Your task to perform on an android device: Open calendar and show me the second week of next month Image 0: 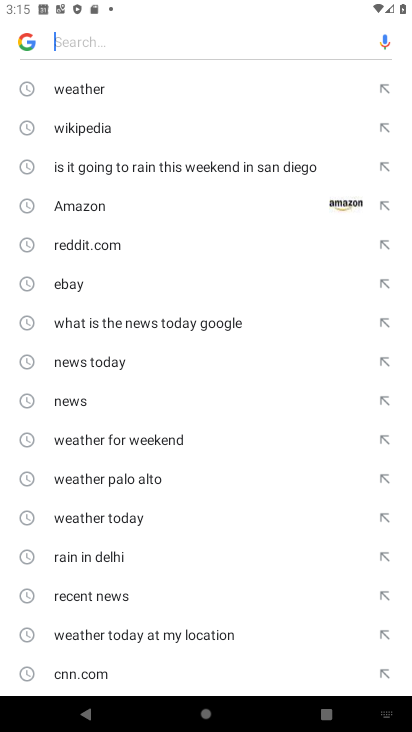
Step 0: press home button
Your task to perform on an android device: Open calendar and show me the second week of next month Image 1: 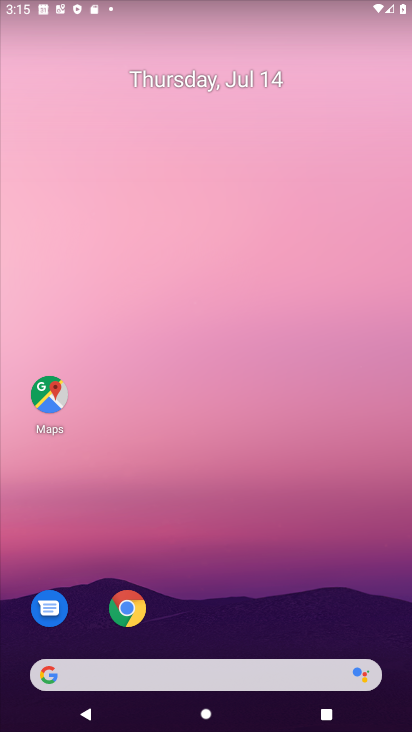
Step 1: drag from (243, 610) to (232, 52)
Your task to perform on an android device: Open calendar and show me the second week of next month Image 2: 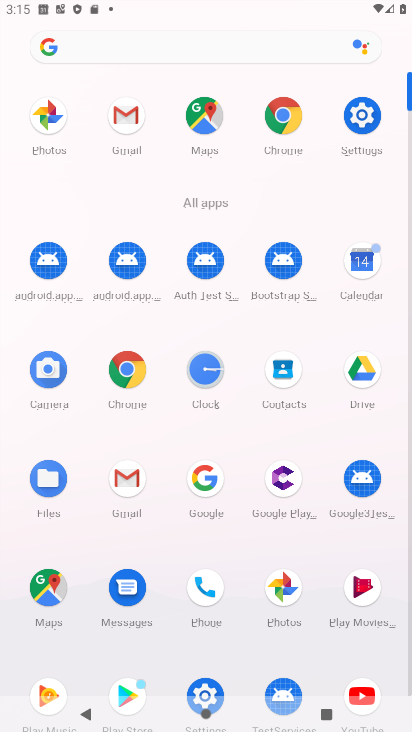
Step 2: click (358, 270)
Your task to perform on an android device: Open calendar and show me the second week of next month Image 3: 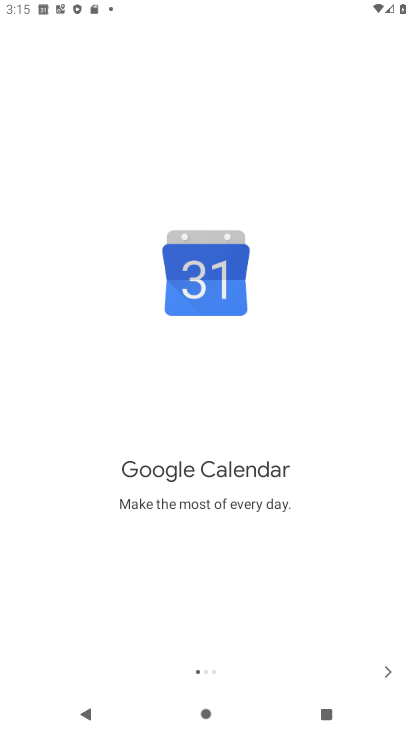
Step 3: click (388, 666)
Your task to perform on an android device: Open calendar and show me the second week of next month Image 4: 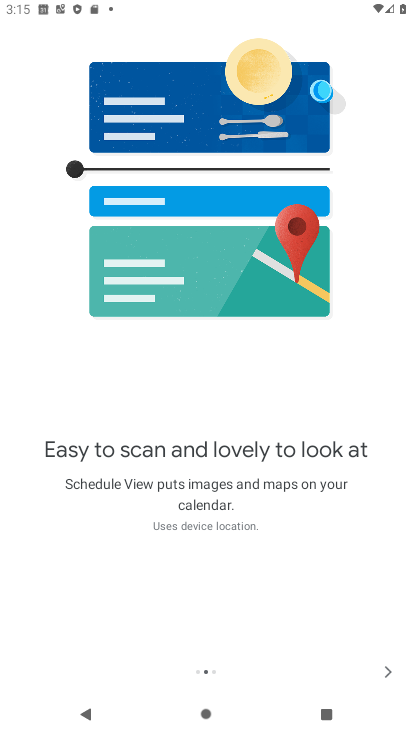
Step 4: click (388, 666)
Your task to perform on an android device: Open calendar and show me the second week of next month Image 5: 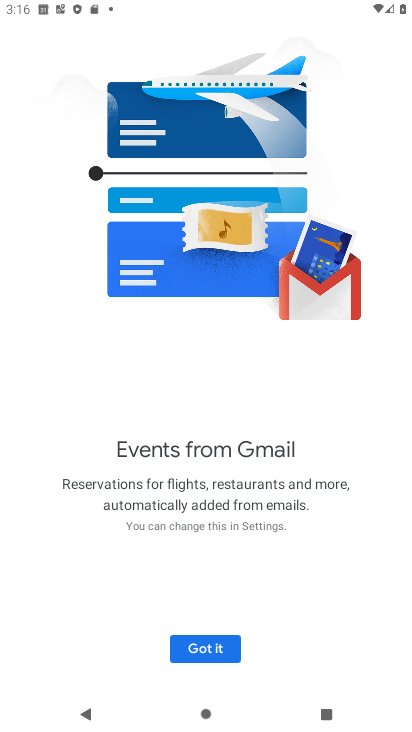
Step 5: click (181, 646)
Your task to perform on an android device: Open calendar and show me the second week of next month Image 6: 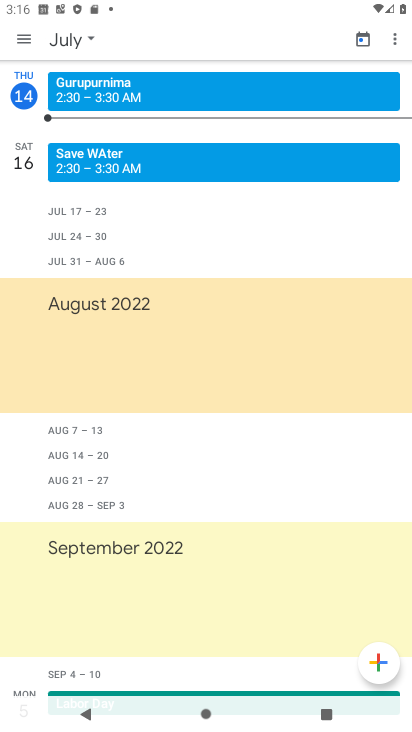
Step 6: click (94, 33)
Your task to perform on an android device: Open calendar and show me the second week of next month Image 7: 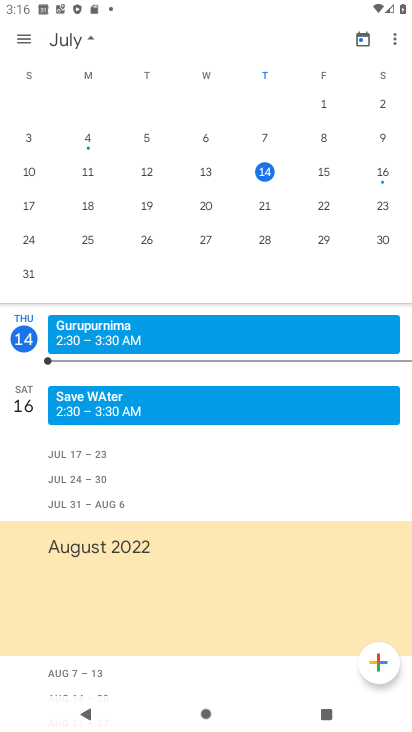
Step 7: drag from (357, 234) to (9, 200)
Your task to perform on an android device: Open calendar and show me the second week of next month Image 8: 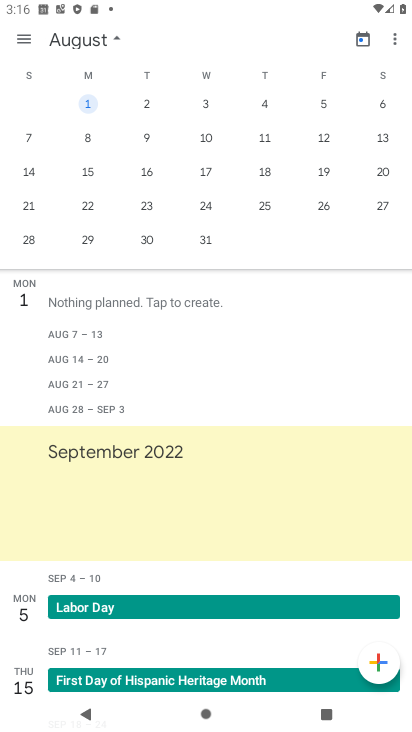
Step 8: click (29, 134)
Your task to perform on an android device: Open calendar and show me the second week of next month Image 9: 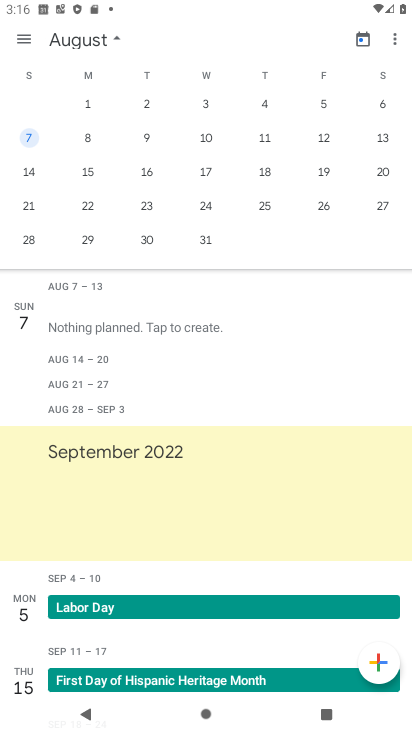
Step 9: task complete